Your task to perform on an android device: Empty the shopping cart on costco.com. Image 0: 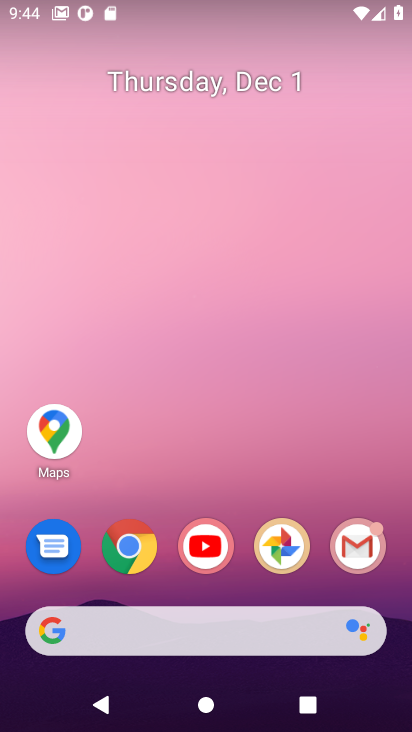
Step 0: click (132, 548)
Your task to perform on an android device: Empty the shopping cart on costco.com. Image 1: 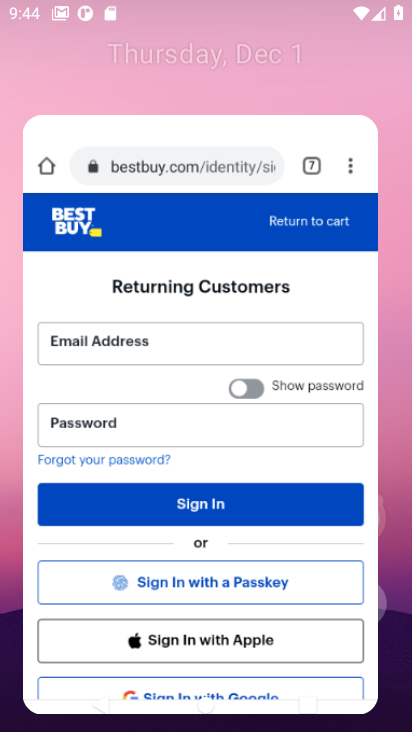
Step 1: click (132, 548)
Your task to perform on an android device: Empty the shopping cart on costco.com. Image 2: 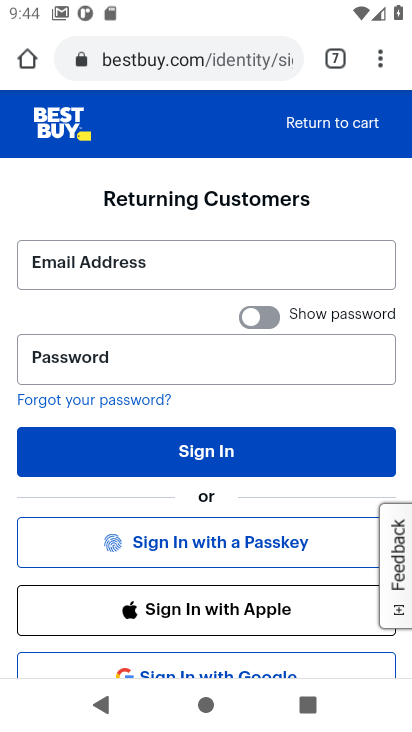
Step 2: click (162, 59)
Your task to perform on an android device: Empty the shopping cart on costco.com. Image 3: 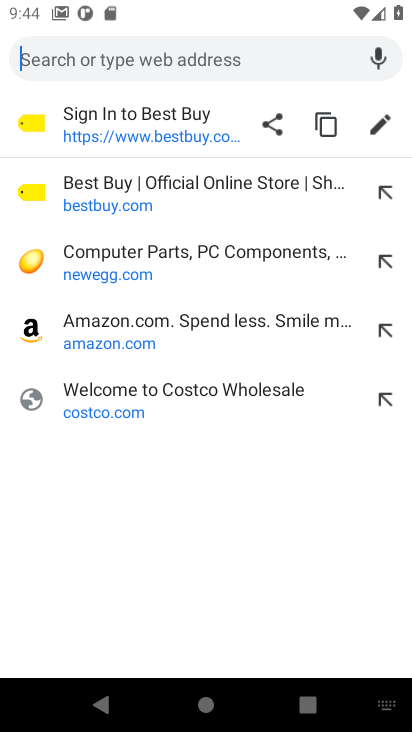
Step 3: click (89, 399)
Your task to perform on an android device: Empty the shopping cart on costco.com. Image 4: 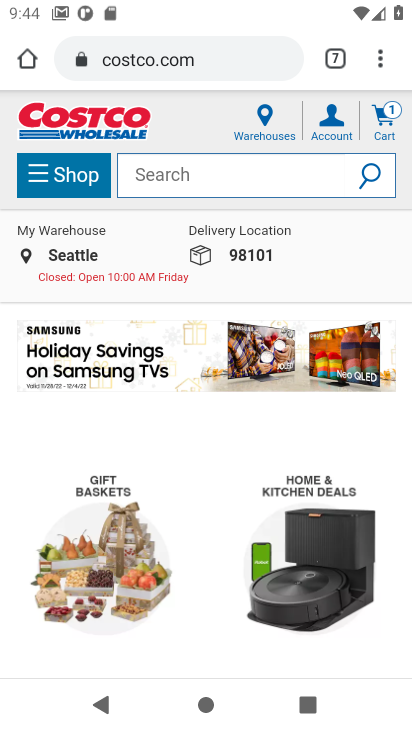
Step 4: click (383, 124)
Your task to perform on an android device: Empty the shopping cart on costco.com. Image 5: 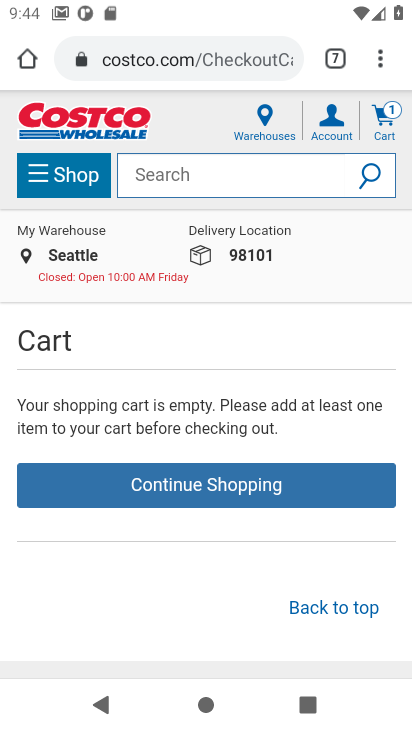
Step 5: click (385, 107)
Your task to perform on an android device: Empty the shopping cart on costco.com. Image 6: 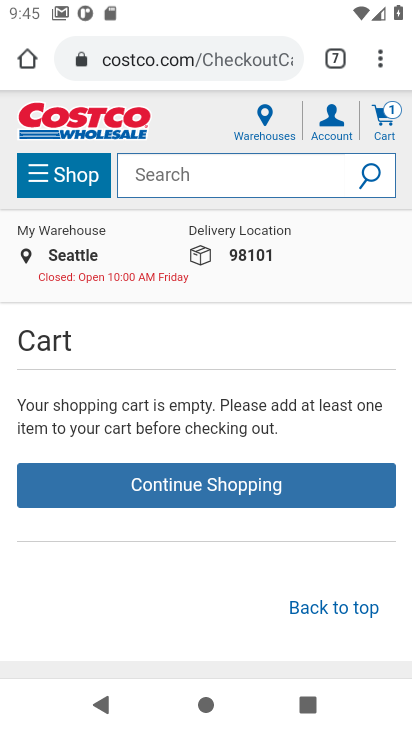
Step 6: task complete